Your task to perform on an android device: What's the news in Thailand? Image 0: 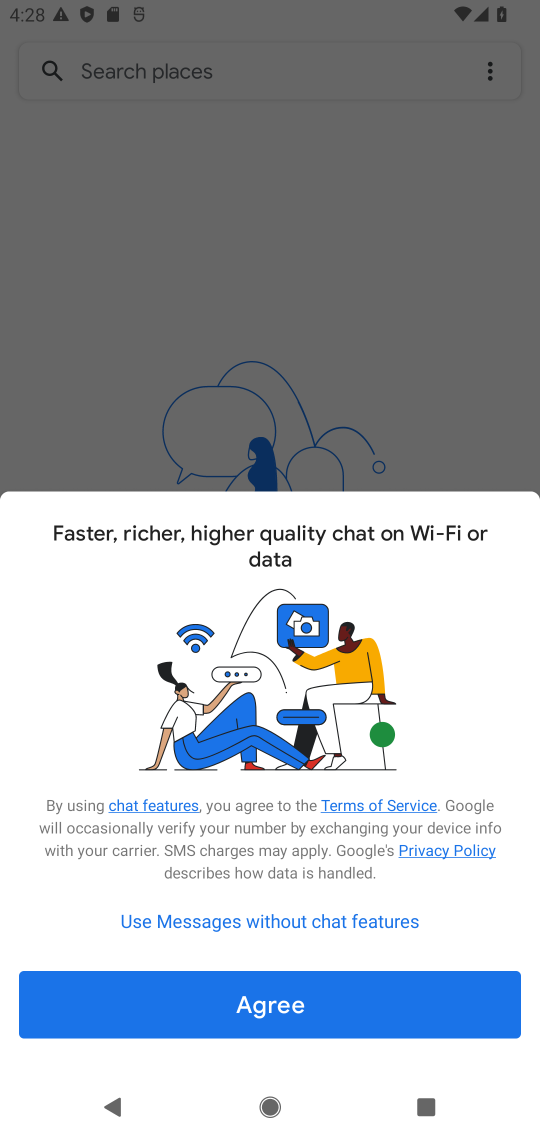
Step 0: press home button
Your task to perform on an android device: What's the news in Thailand? Image 1: 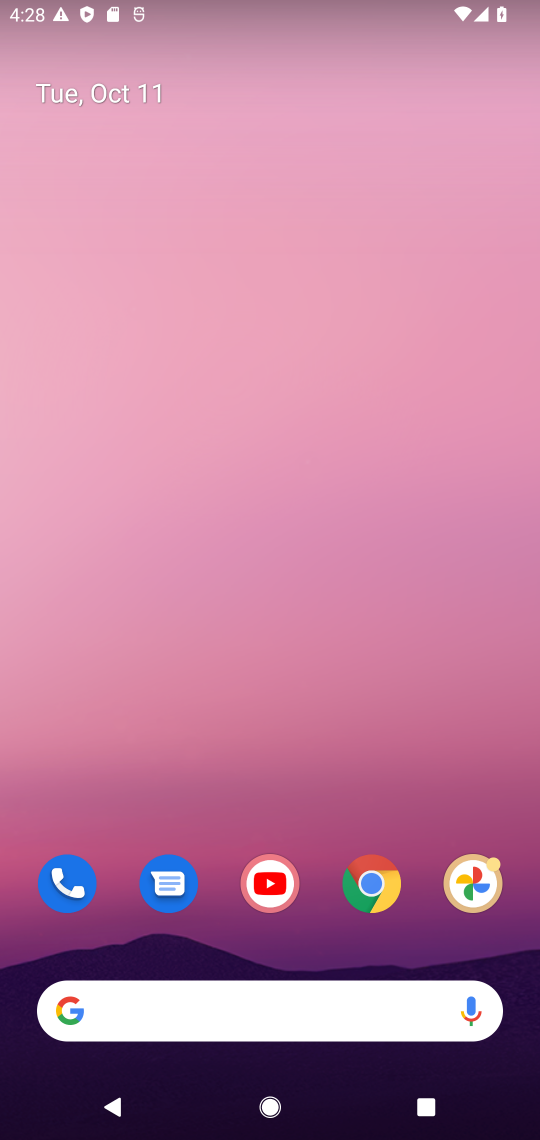
Step 1: drag from (322, 947) to (243, 88)
Your task to perform on an android device: What's the news in Thailand? Image 2: 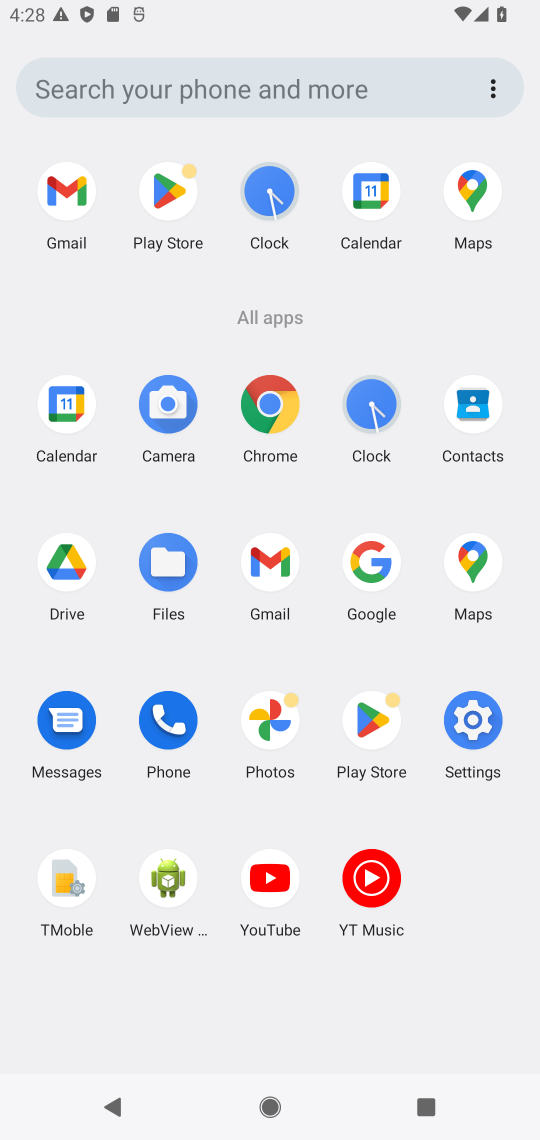
Step 2: click (272, 396)
Your task to perform on an android device: What's the news in Thailand? Image 3: 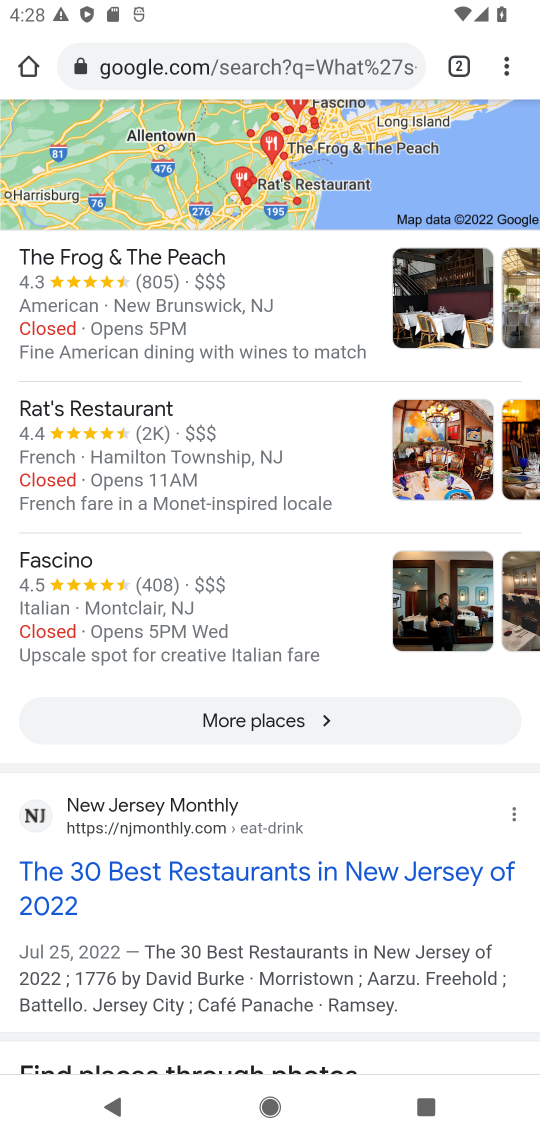
Step 3: click (273, 61)
Your task to perform on an android device: What's the news in Thailand? Image 4: 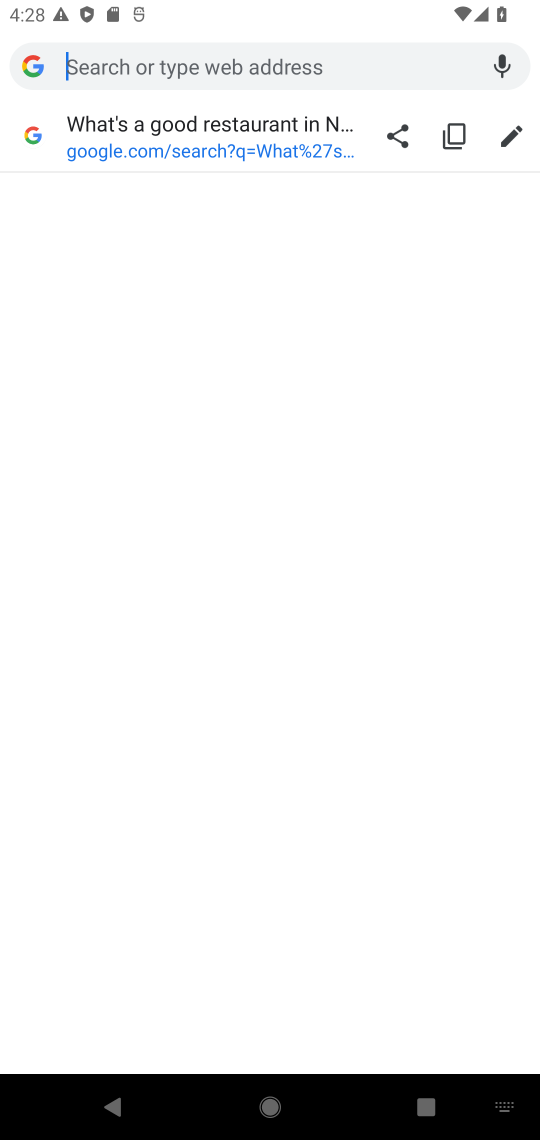
Step 4: type "What's the news in Thailand?"
Your task to perform on an android device: What's the news in Thailand? Image 5: 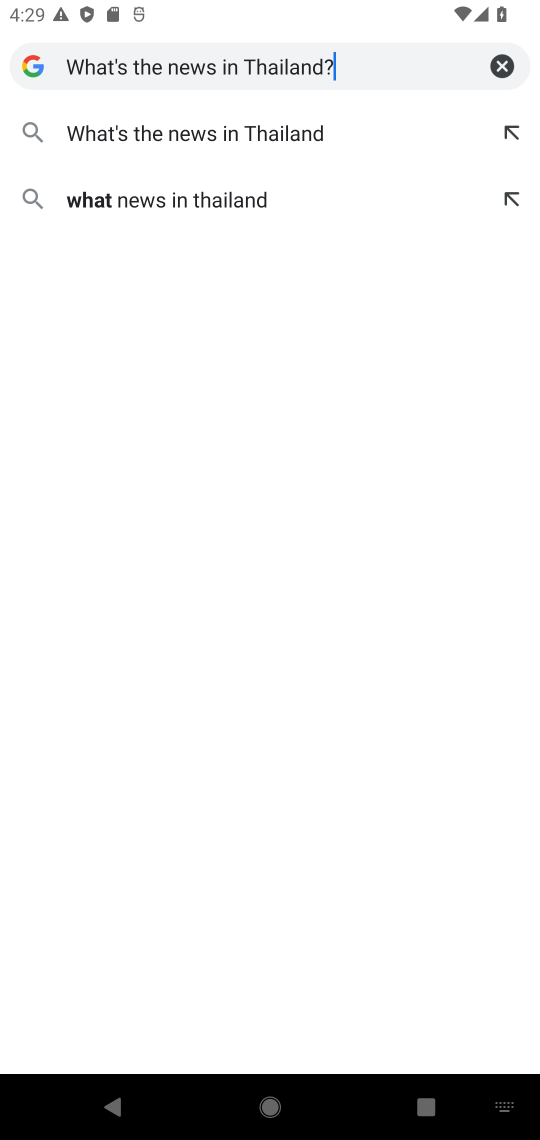
Step 5: press enter
Your task to perform on an android device: What's the news in Thailand? Image 6: 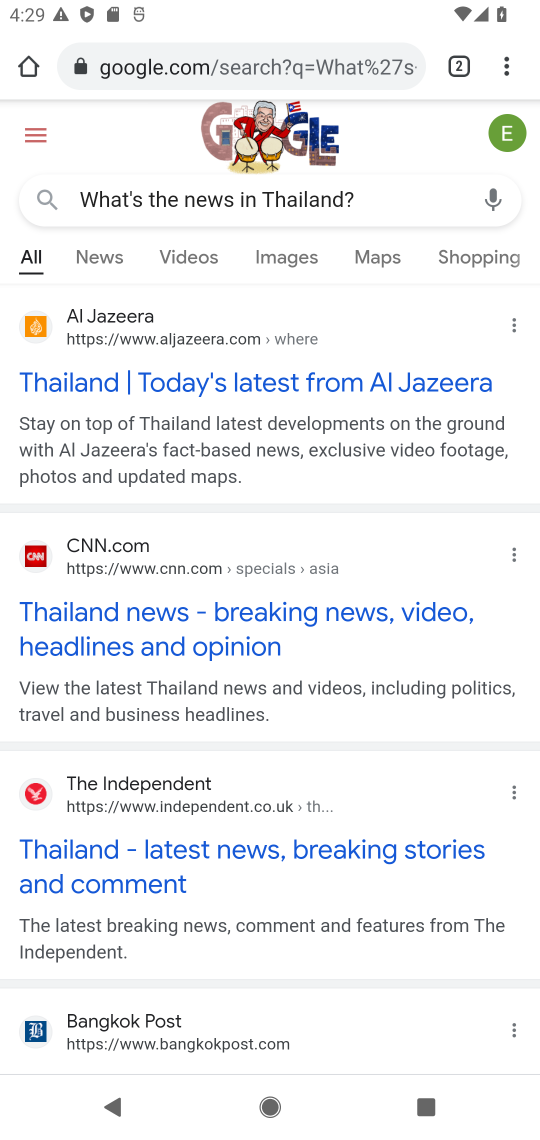
Step 6: click (342, 387)
Your task to perform on an android device: What's the news in Thailand? Image 7: 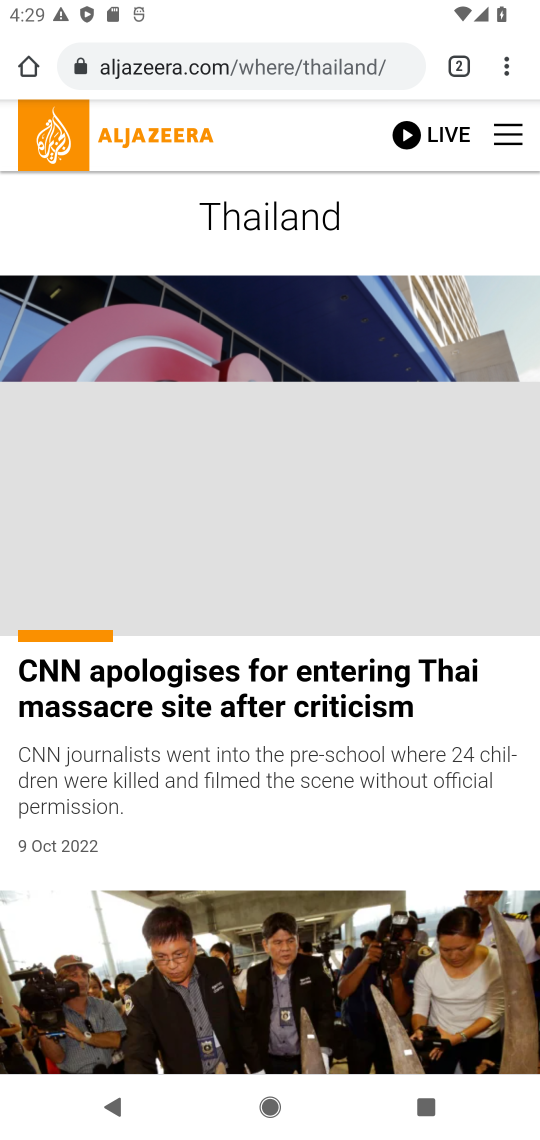
Step 7: task complete